Your task to perform on an android device: remove spam from my inbox in the gmail app Image 0: 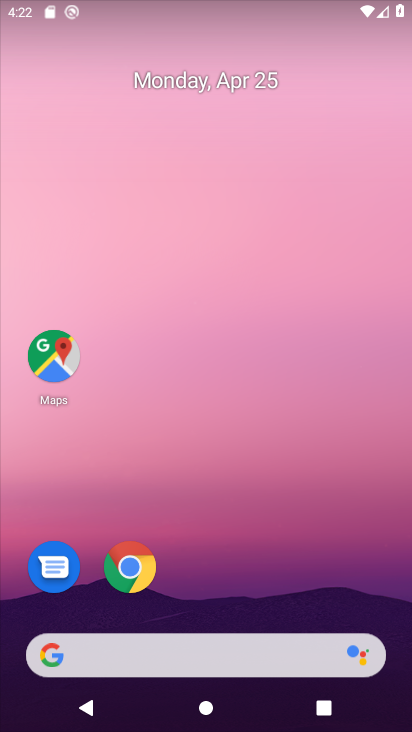
Step 0: drag from (223, 613) to (303, 177)
Your task to perform on an android device: remove spam from my inbox in the gmail app Image 1: 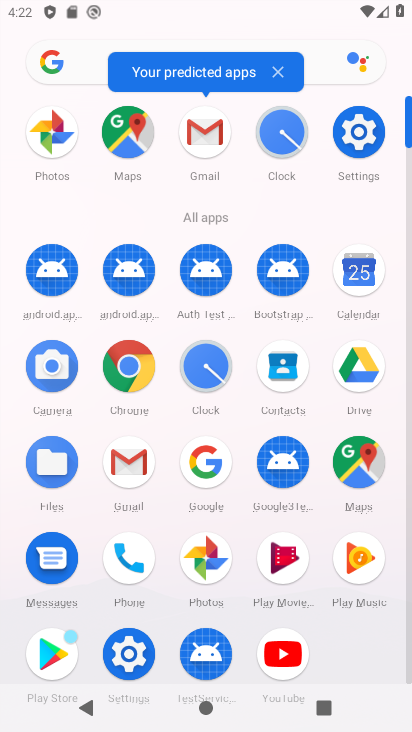
Step 1: click (140, 478)
Your task to perform on an android device: remove spam from my inbox in the gmail app Image 2: 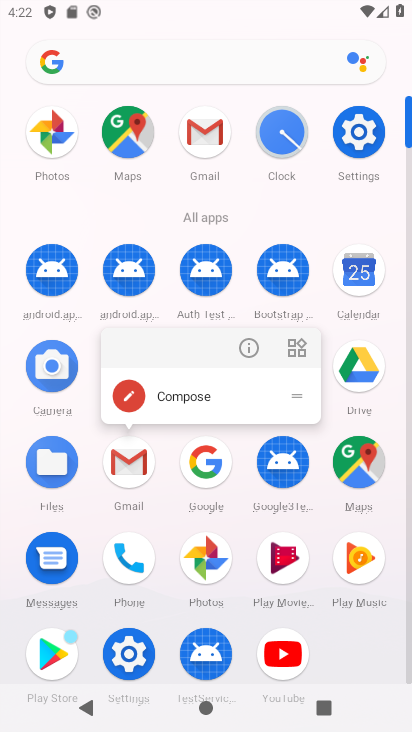
Step 2: click (137, 460)
Your task to perform on an android device: remove spam from my inbox in the gmail app Image 3: 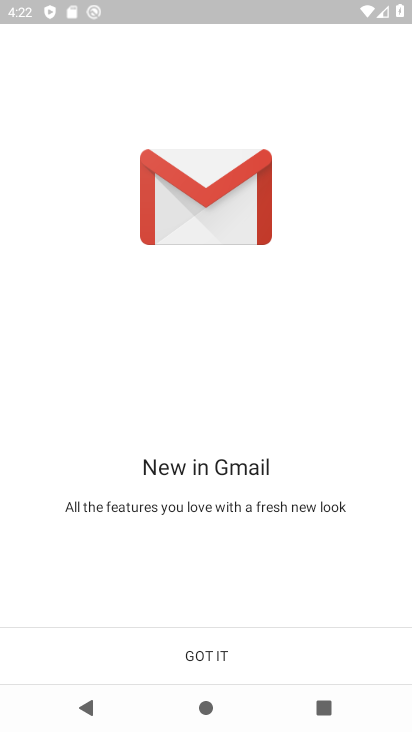
Step 3: click (250, 670)
Your task to perform on an android device: remove spam from my inbox in the gmail app Image 4: 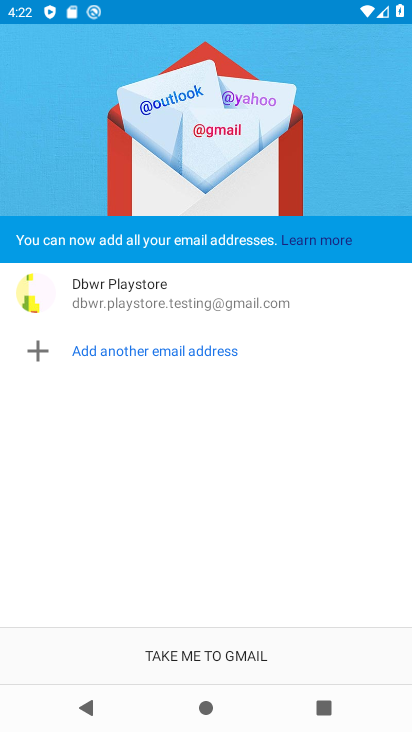
Step 4: click (246, 669)
Your task to perform on an android device: remove spam from my inbox in the gmail app Image 5: 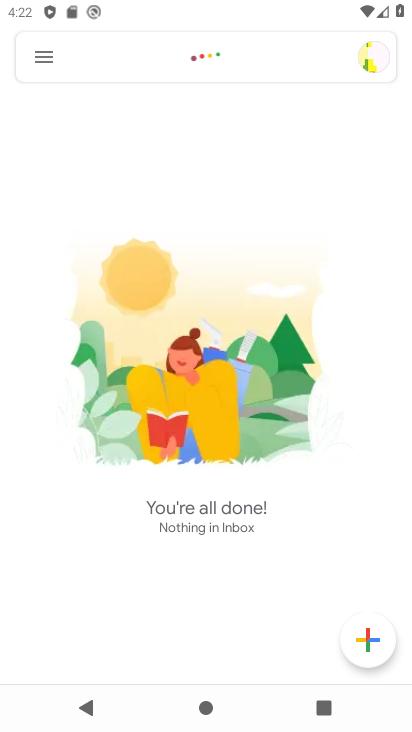
Step 5: click (45, 49)
Your task to perform on an android device: remove spam from my inbox in the gmail app Image 6: 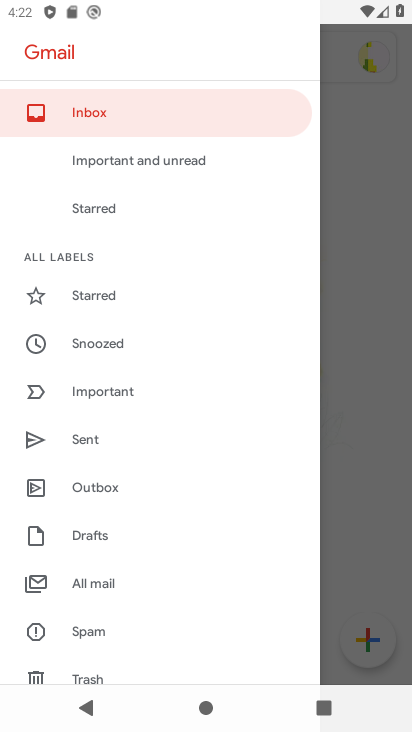
Step 6: click (126, 640)
Your task to perform on an android device: remove spam from my inbox in the gmail app Image 7: 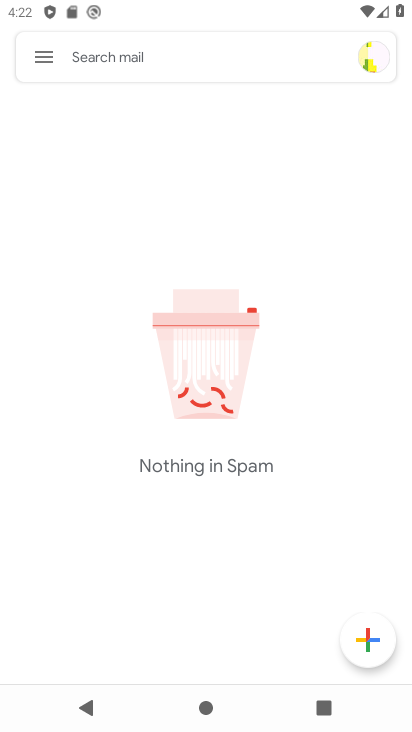
Step 7: task complete